Your task to perform on an android device: Go to Amazon Image 0: 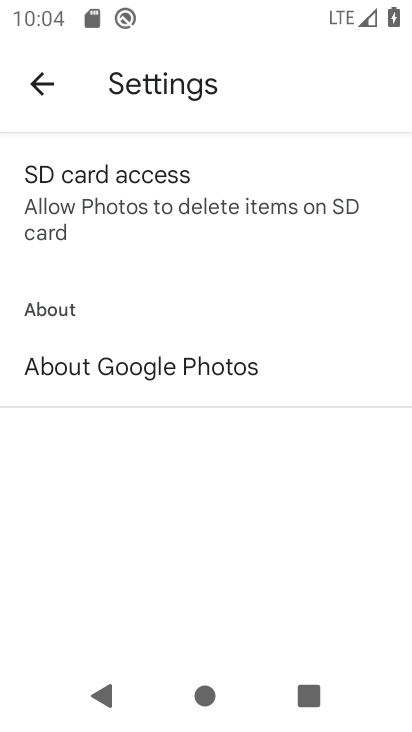
Step 0: press home button
Your task to perform on an android device: Go to Amazon Image 1: 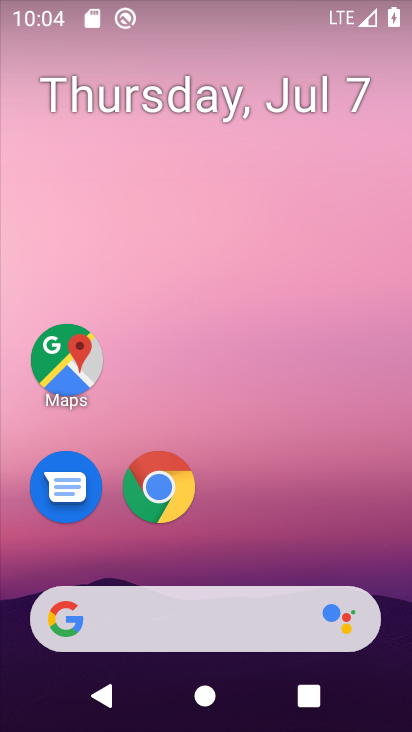
Step 1: drag from (327, 526) to (325, 117)
Your task to perform on an android device: Go to Amazon Image 2: 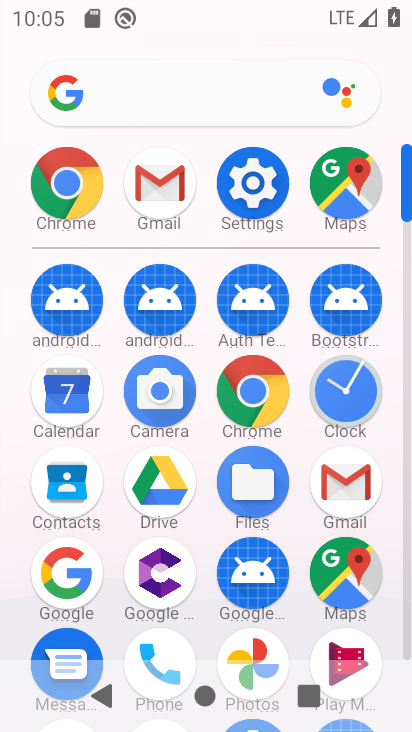
Step 2: click (269, 390)
Your task to perform on an android device: Go to Amazon Image 3: 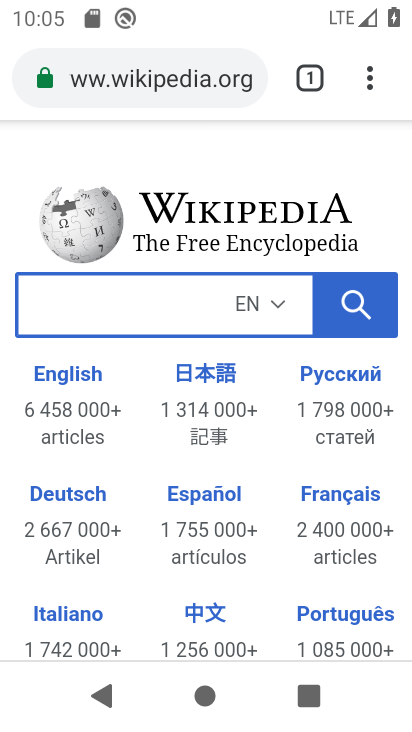
Step 3: click (192, 92)
Your task to perform on an android device: Go to Amazon Image 4: 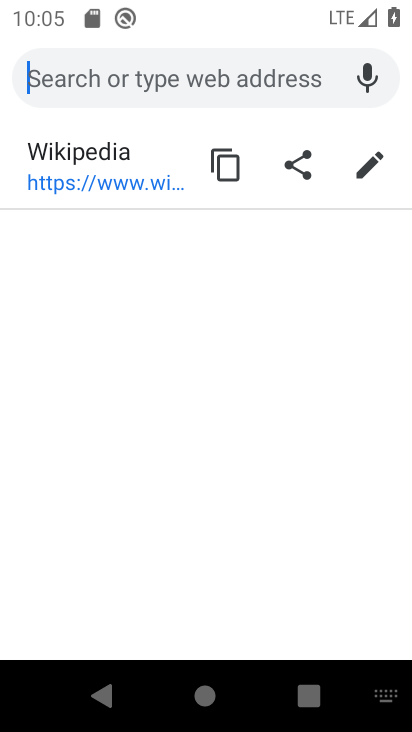
Step 4: type "amazon"
Your task to perform on an android device: Go to Amazon Image 5: 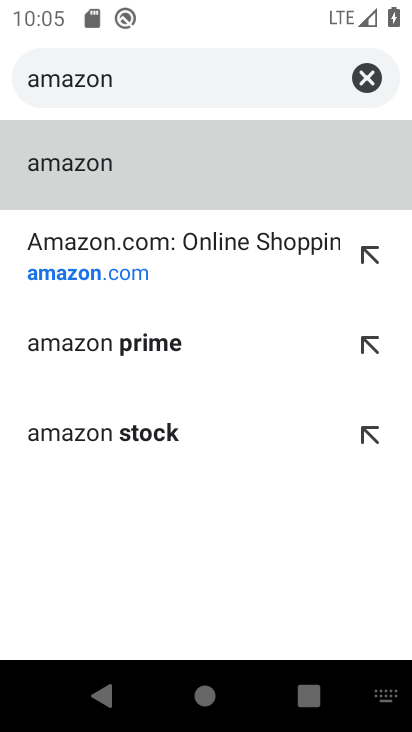
Step 5: click (208, 249)
Your task to perform on an android device: Go to Amazon Image 6: 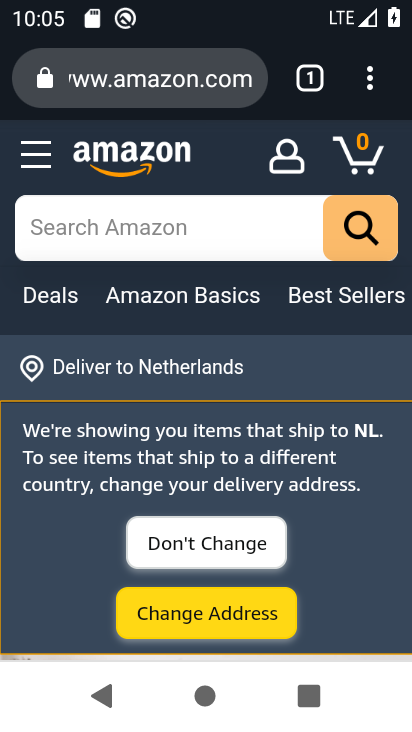
Step 6: task complete